Your task to perform on an android device: open wifi settings Image 0: 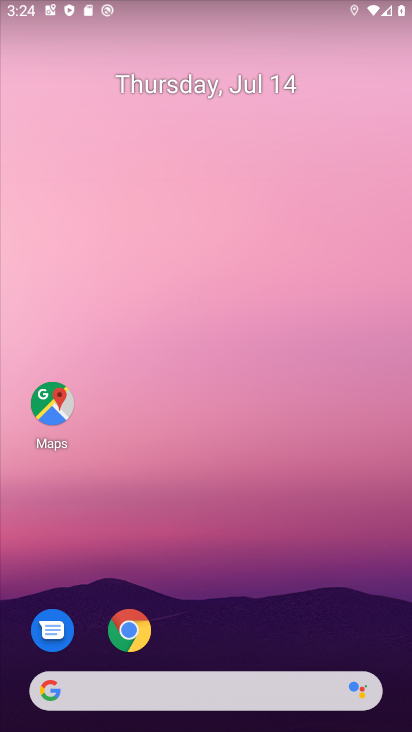
Step 0: drag from (187, 5) to (187, 562)
Your task to perform on an android device: open wifi settings Image 1: 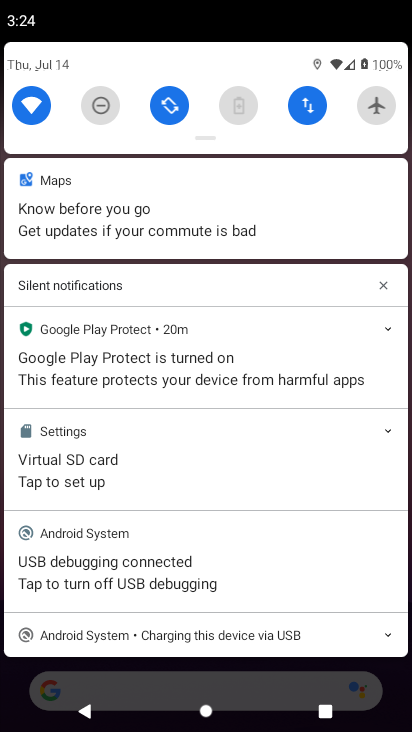
Step 1: click (27, 114)
Your task to perform on an android device: open wifi settings Image 2: 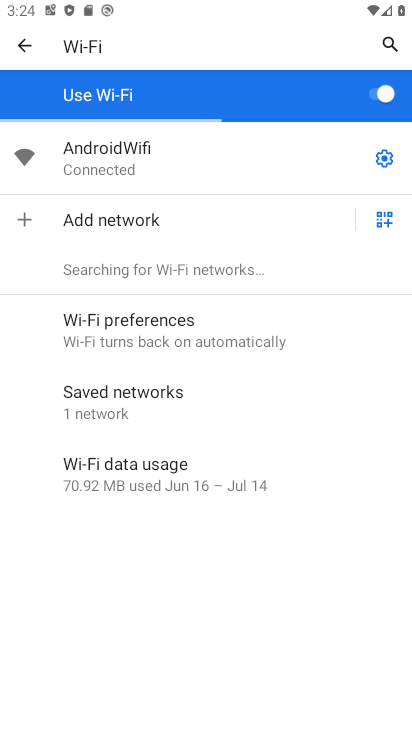
Step 2: task complete